Your task to perform on an android device: change the clock display to show seconds Image 0: 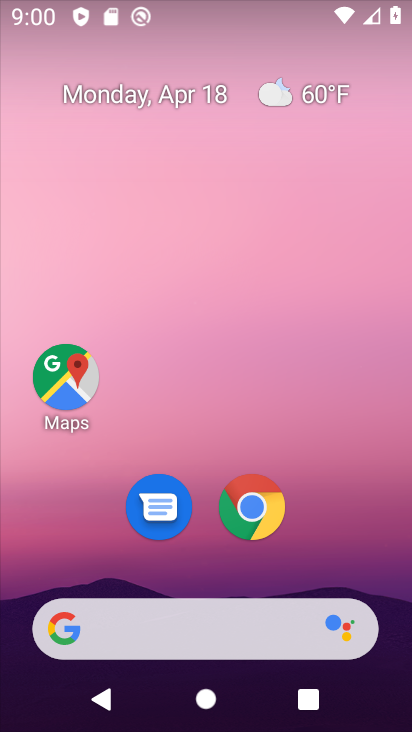
Step 0: drag from (299, 565) to (301, 118)
Your task to perform on an android device: change the clock display to show seconds Image 1: 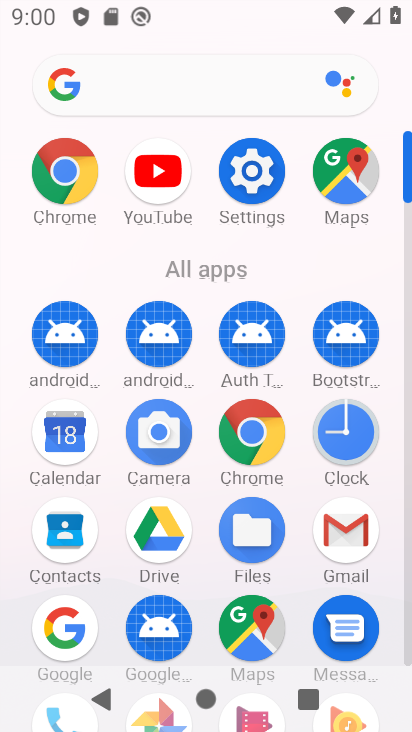
Step 1: click (361, 443)
Your task to perform on an android device: change the clock display to show seconds Image 2: 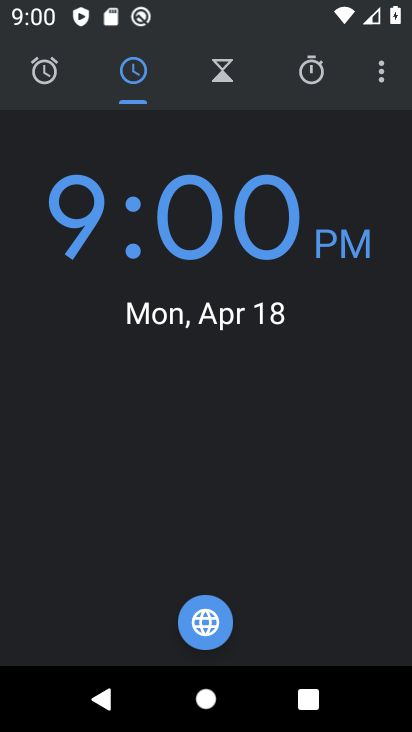
Step 2: click (384, 66)
Your task to perform on an android device: change the clock display to show seconds Image 3: 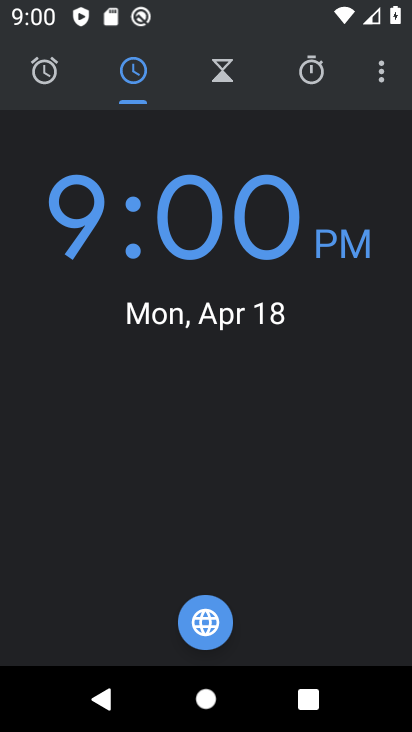
Step 3: click (380, 77)
Your task to perform on an android device: change the clock display to show seconds Image 4: 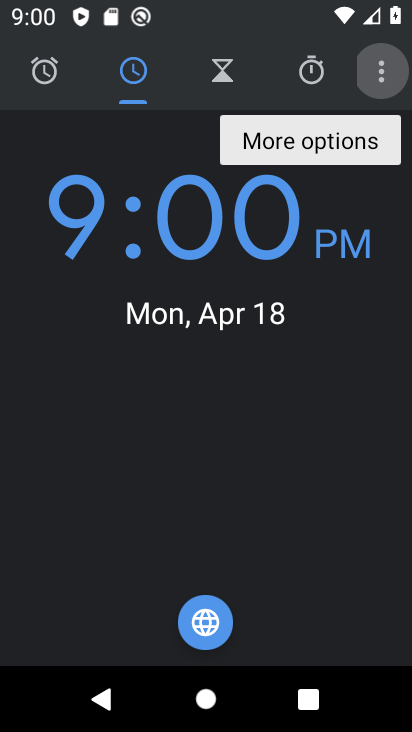
Step 4: click (383, 75)
Your task to perform on an android device: change the clock display to show seconds Image 5: 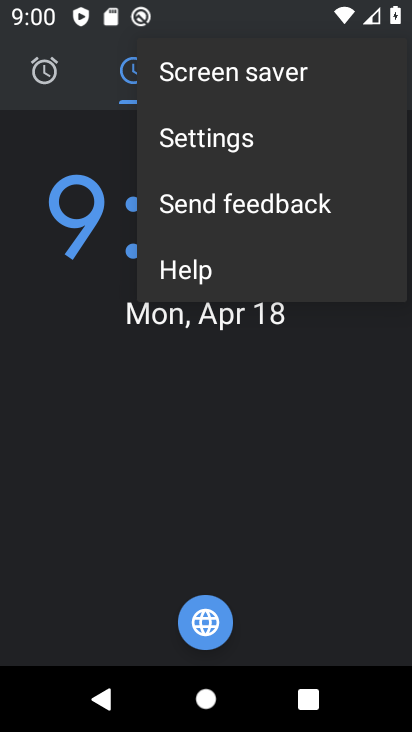
Step 5: click (292, 143)
Your task to perform on an android device: change the clock display to show seconds Image 6: 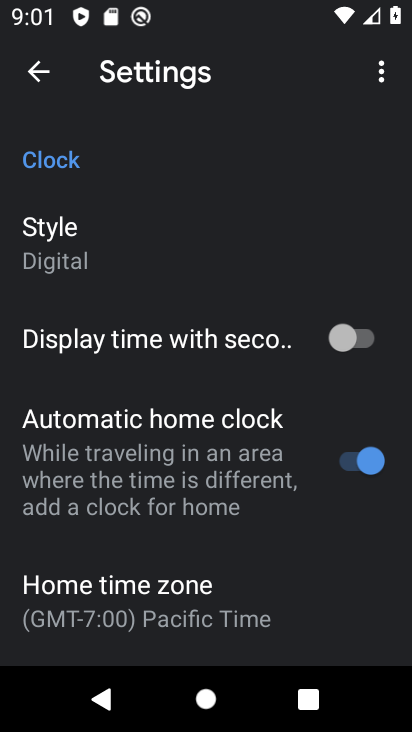
Step 6: click (366, 347)
Your task to perform on an android device: change the clock display to show seconds Image 7: 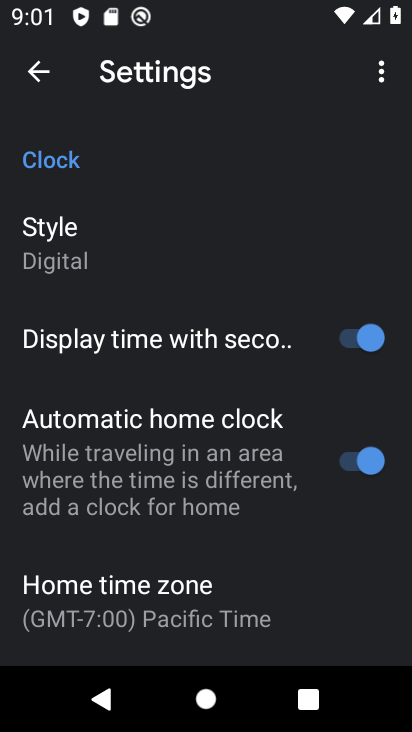
Step 7: task complete